Your task to perform on an android device: turn on translation in the chrome app Image 0: 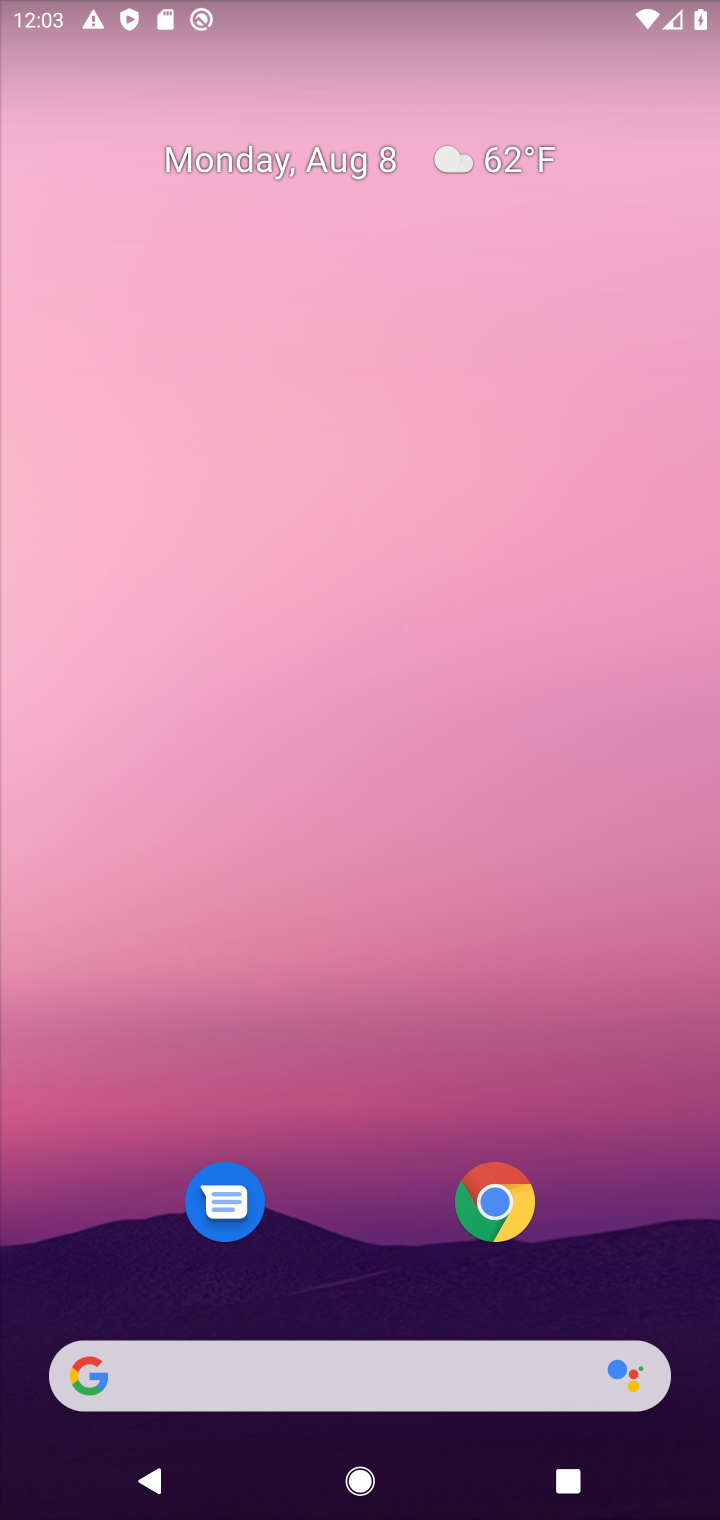
Step 0: click (504, 1213)
Your task to perform on an android device: turn on translation in the chrome app Image 1: 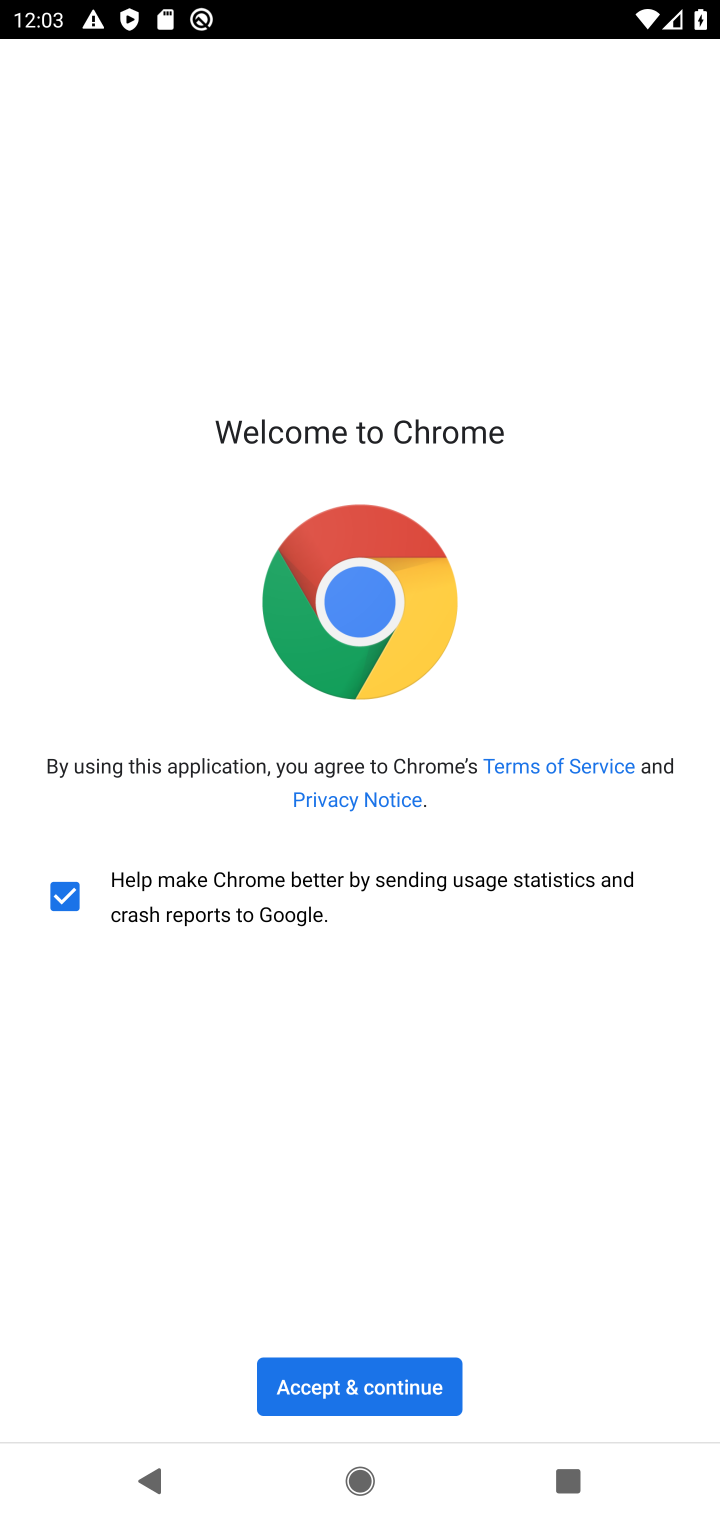
Step 1: click (413, 1359)
Your task to perform on an android device: turn on translation in the chrome app Image 2: 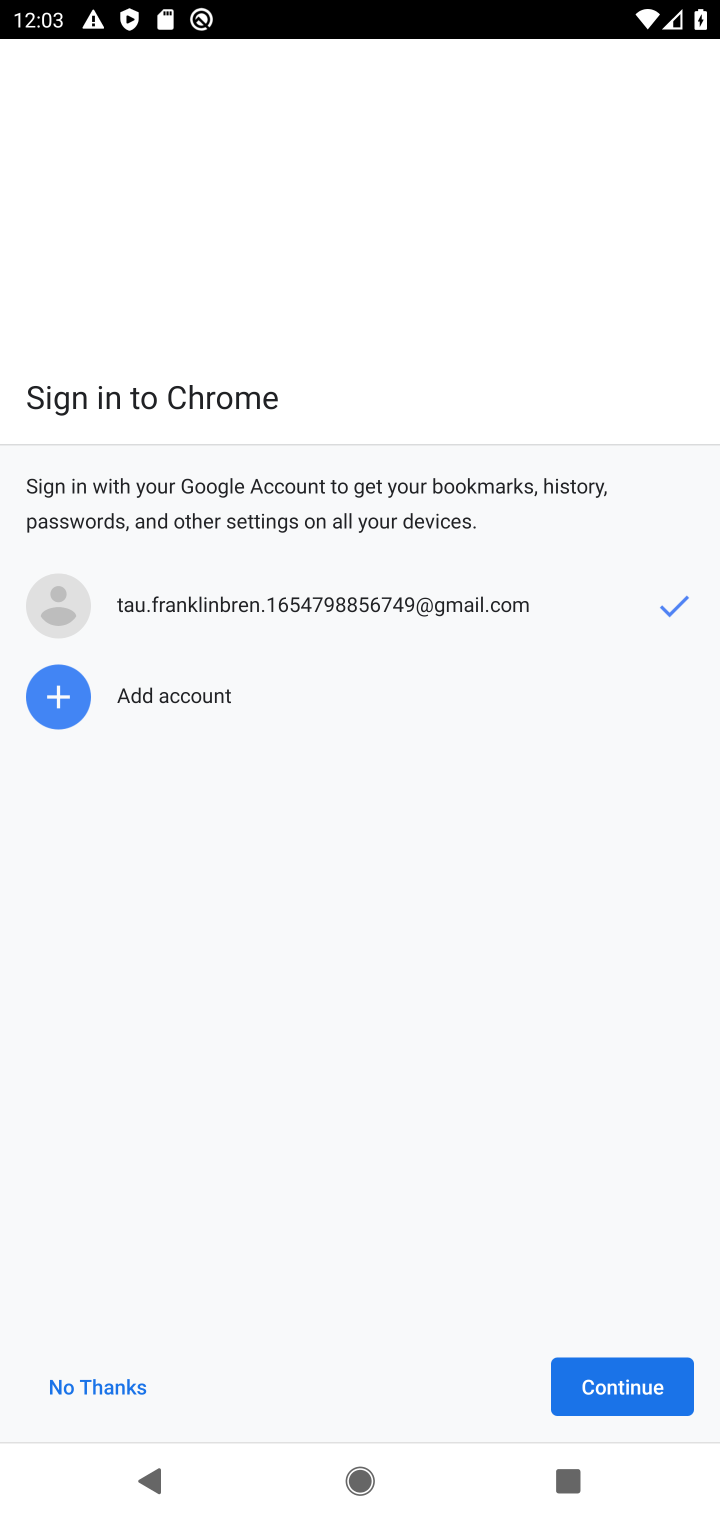
Step 2: click (631, 1397)
Your task to perform on an android device: turn on translation in the chrome app Image 3: 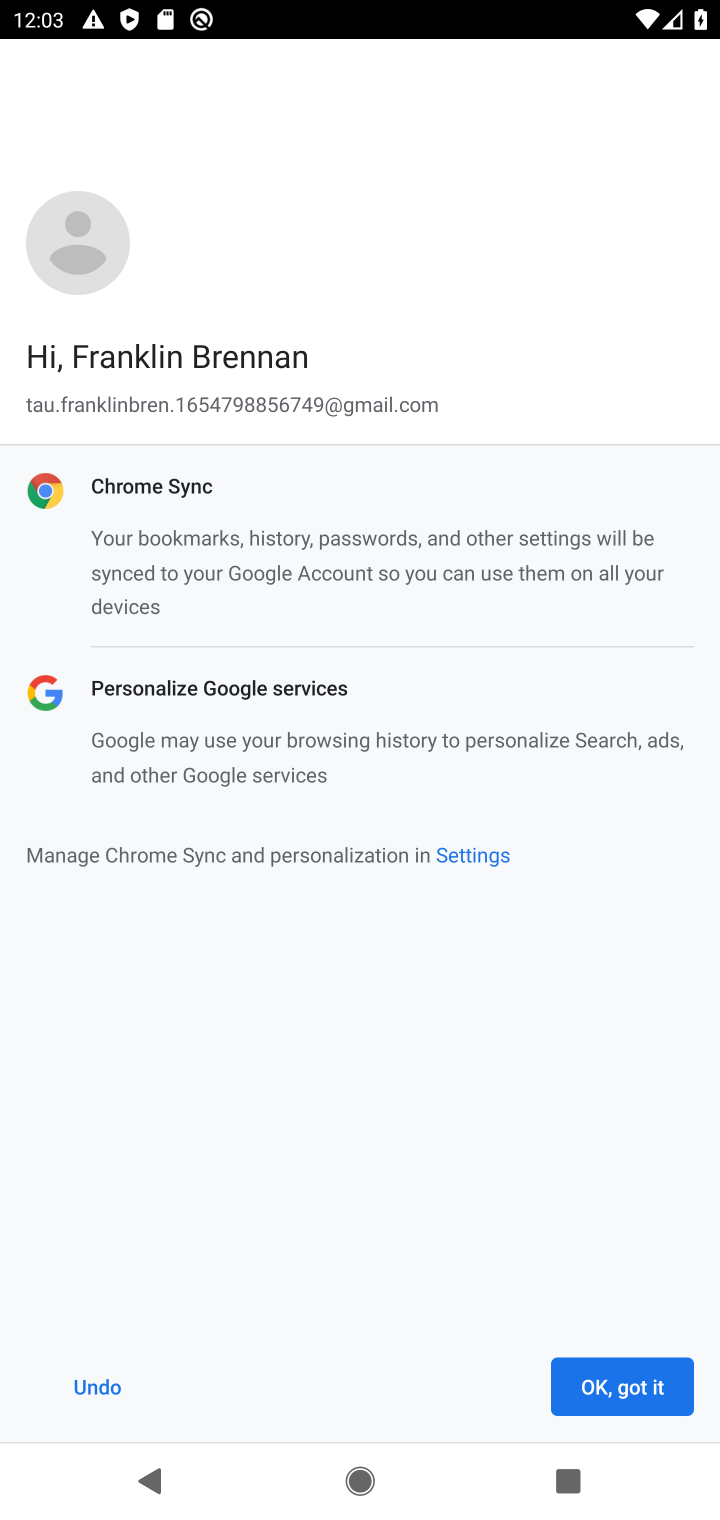
Step 3: click (631, 1397)
Your task to perform on an android device: turn on translation in the chrome app Image 4: 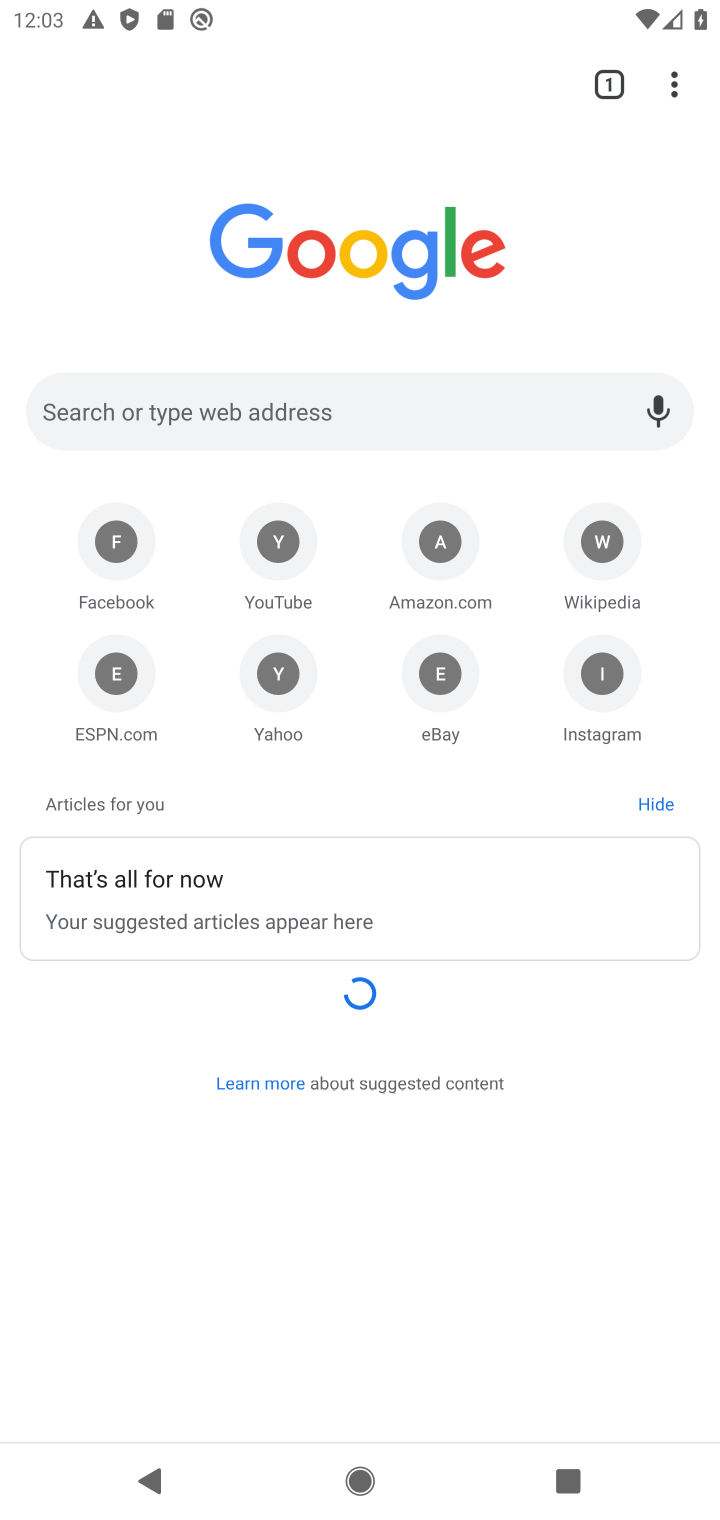
Step 4: click (666, 85)
Your task to perform on an android device: turn on translation in the chrome app Image 5: 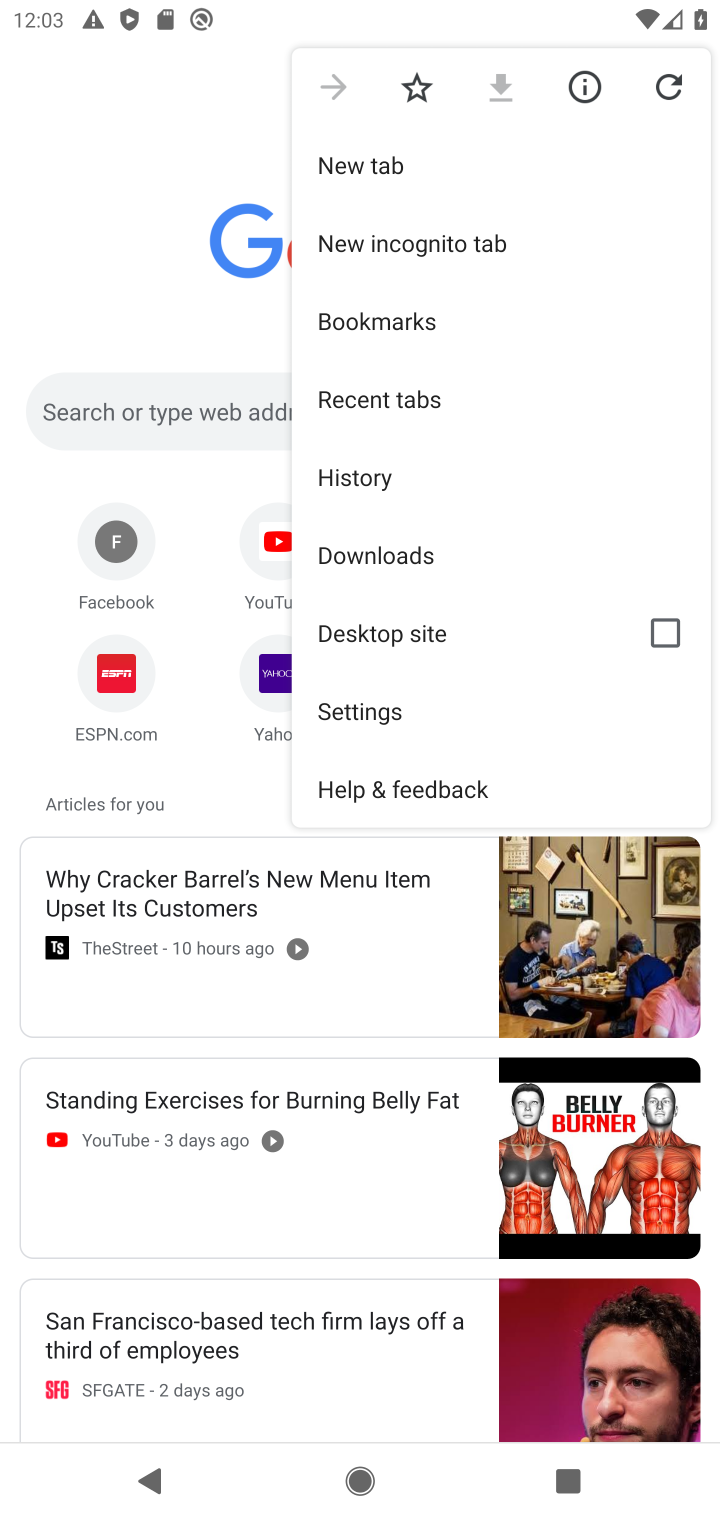
Step 5: click (422, 709)
Your task to perform on an android device: turn on translation in the chrome app Image 6: 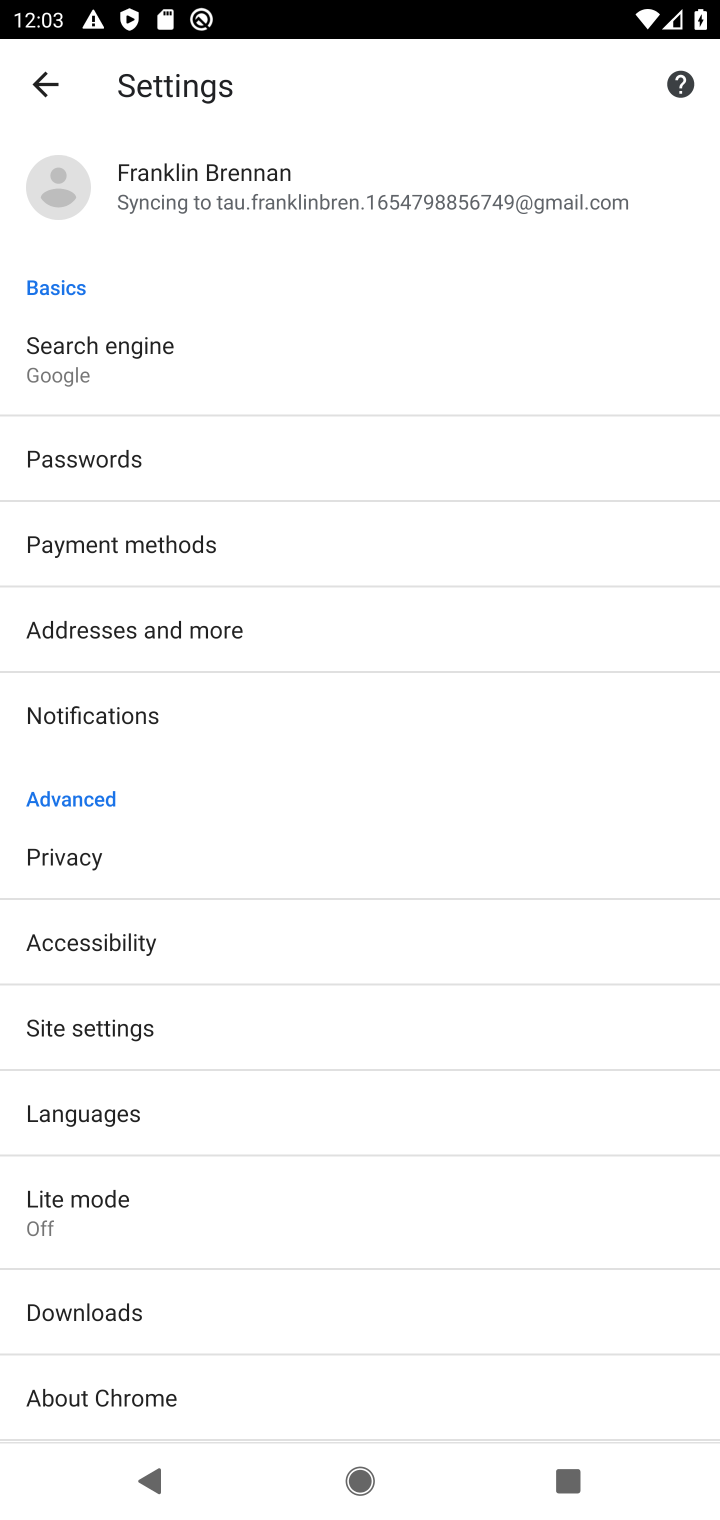
Step 6: click (100, 1109)
Your task to perform on an android device: turn on translation in the chrome app Image 7: 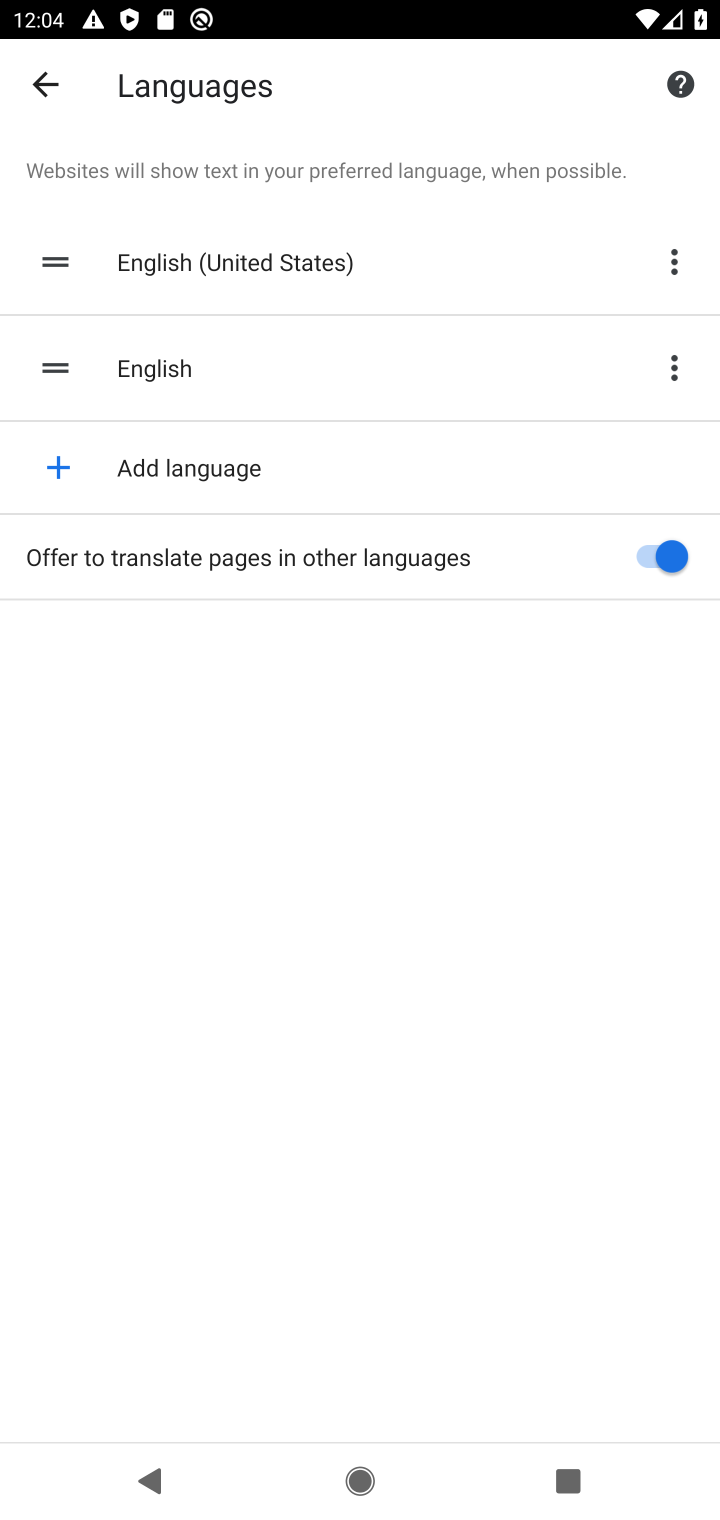
Step 7: task complete